Your task to perform on an android device: Do I have any events this weekend? Image 0: 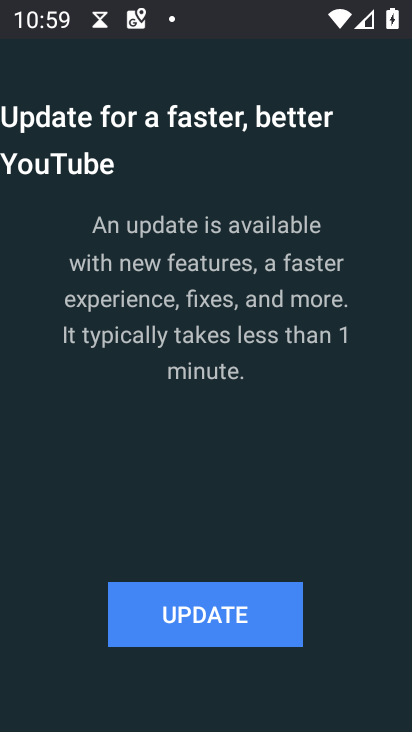
Step 0: press home button
Your task to perform on an android device: Do I have any events this weekend? Image 1: 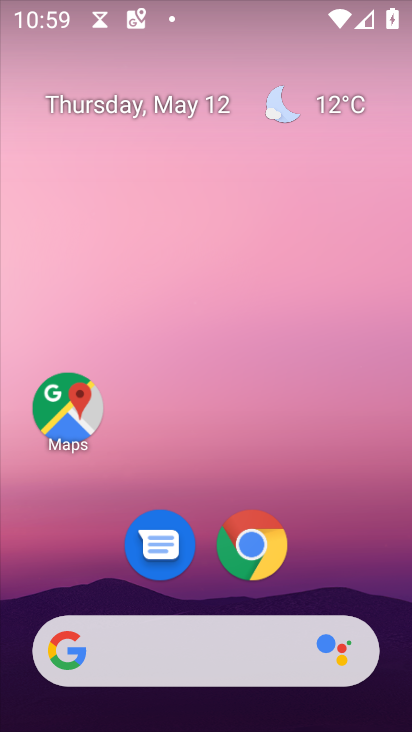
Step 1: drag from (207, 596) to (215, 45)
Your task to perform on an android device: Do I have any events this weekend? Image 2: 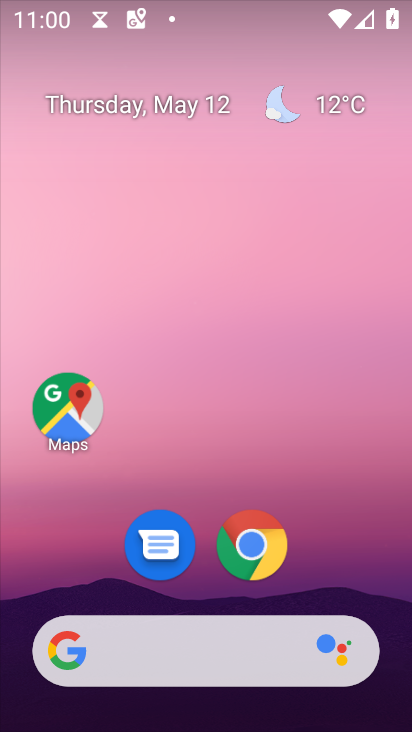
Step 2: drag from (329, 593) to (309, 45)
Your task to perform on an android device: Do I have any events this weekend? Image 3: 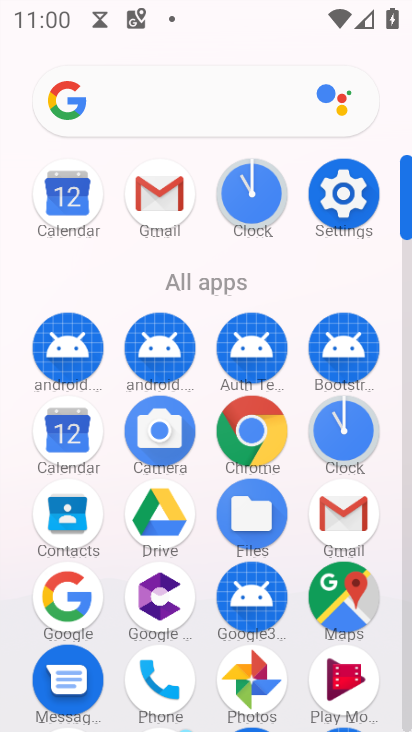
Step 3: click (64, 426)
Your task to perform on an android device: Do I have any events this weekend? Image 4: 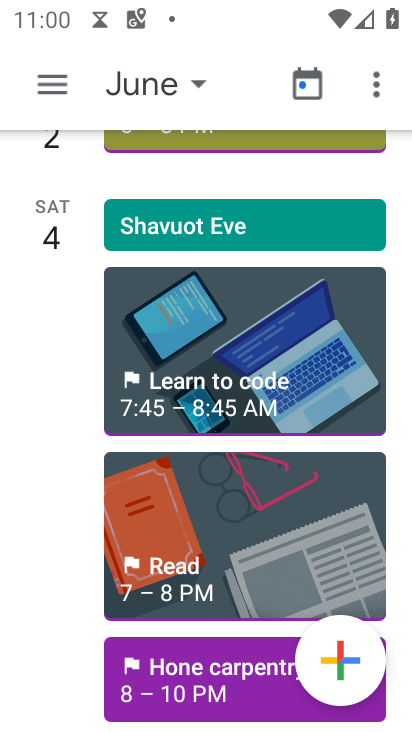
Step 4: click (57, 78)
Your task to perform on an android device: Do I have any events this weekend? Image 5: 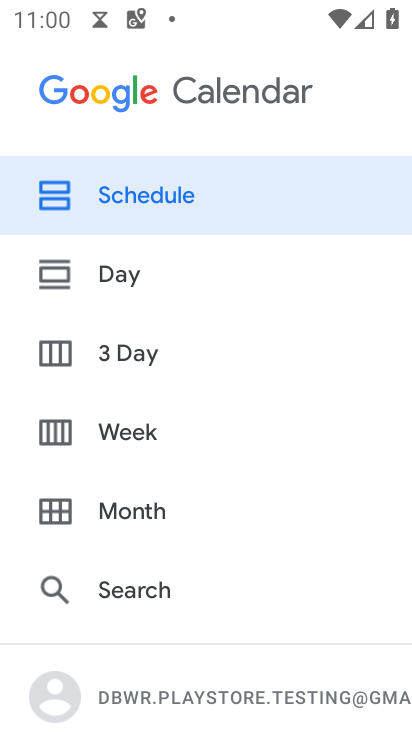
Step 5: click (84, 435)
Your task to perform on an android device: Do I have any events this weekend? Image 6: 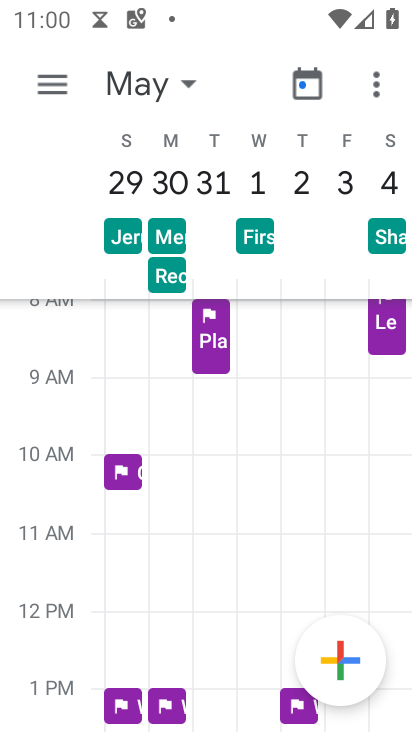
Step 6: drag from (152, 178) to (406, 174)
Your task to perform on an android device: Do I have any events this weekend? Image 7: 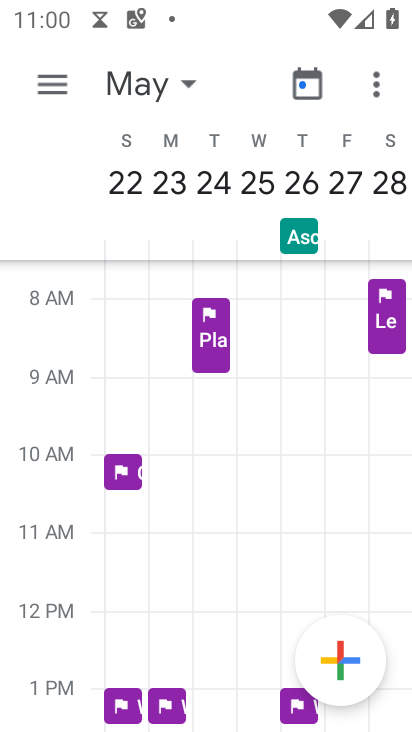
Step 7: drag from (123, 182) to (381, 176)
Your task to perform on an android device: Do I have any events this weekend? Image 8: 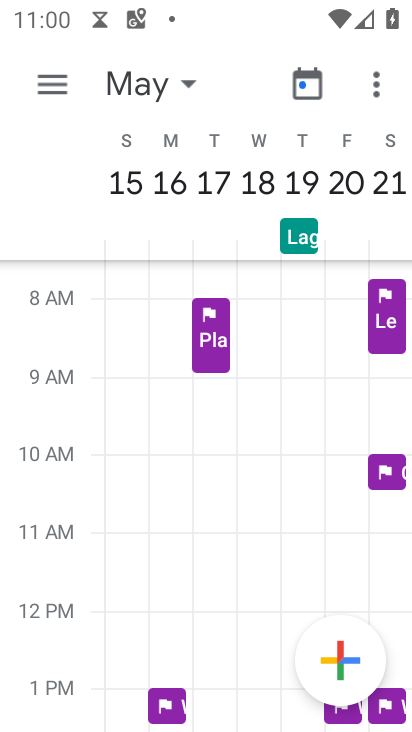
Step 8: drag from (123, 190) to (408, 179)
Your task to perform on an android device: Do I have any events this weekend? Image 9: 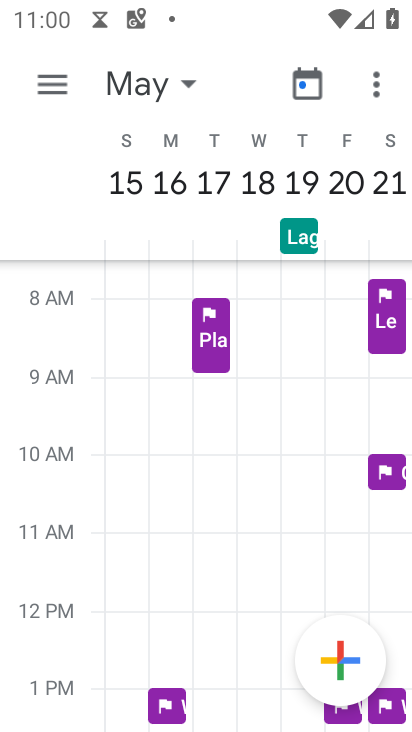
Step 9: drag from (131, 175) to (408, 170)
Your task to perform on an android device: Do I have any events this weekend? Image 10: 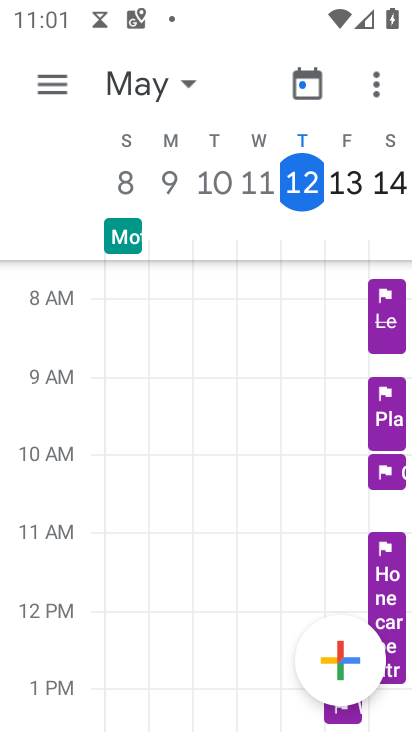
Step 10: click (303, 180)
Your task to perform on an android device: Do I have any events this weekend? Image 11: 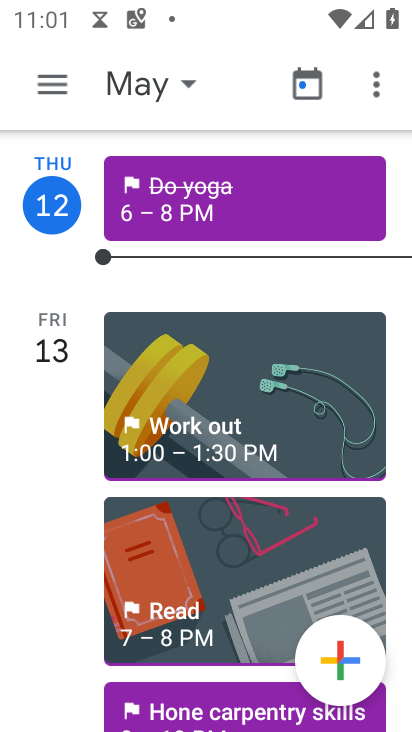
Step 11: drag from (65, 524) to (67, 209)
Your task to perform on an android device: Do I have any events this weekend? Image 12: 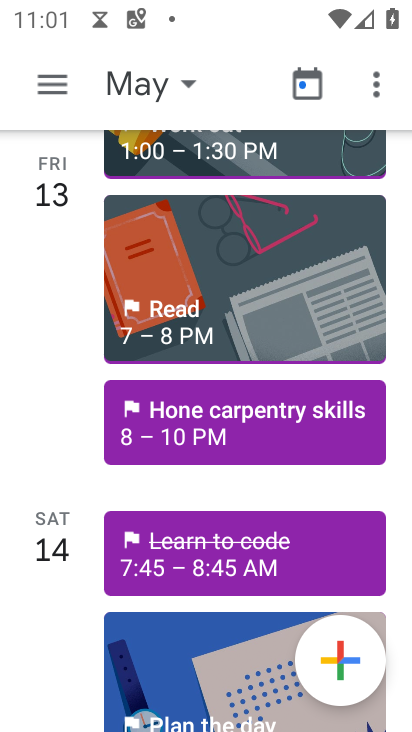
Step 12: drag from (69, 601) to (71, 343)
Your task to perform on an android device: Do I have any events this weekend? Image 13: 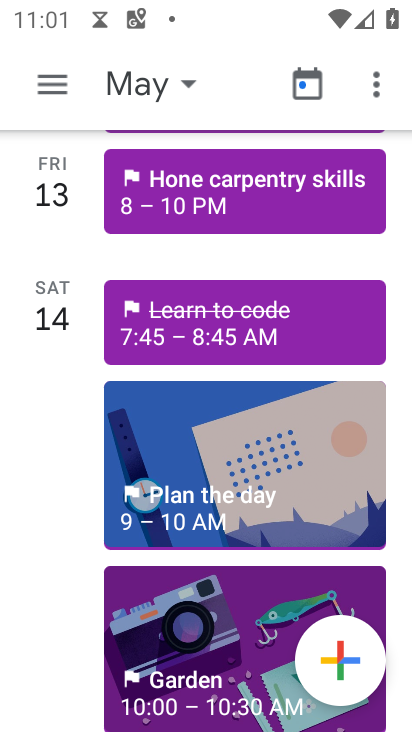
Step 13: drag from (49, 536) to (51, 291)
Your task to perform on an android device: Do I have any events this weekend? Image 14: 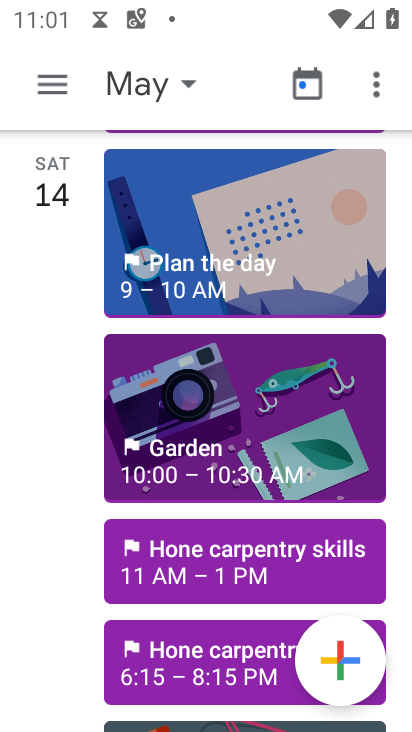
Step 14: click (59, 79)
Your task to perform on an android device: Do I have any events this weekend? Image 15: 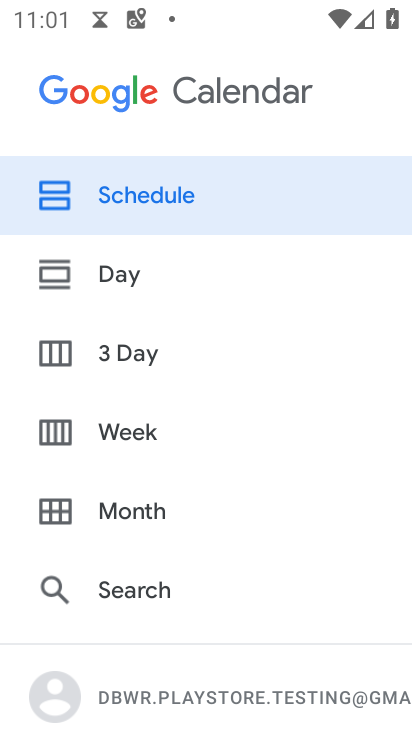
Step 15: drag from (128, 625) to (121, 192)
Your task to perform on an android device: Do I have any events this weekend? Image 16: 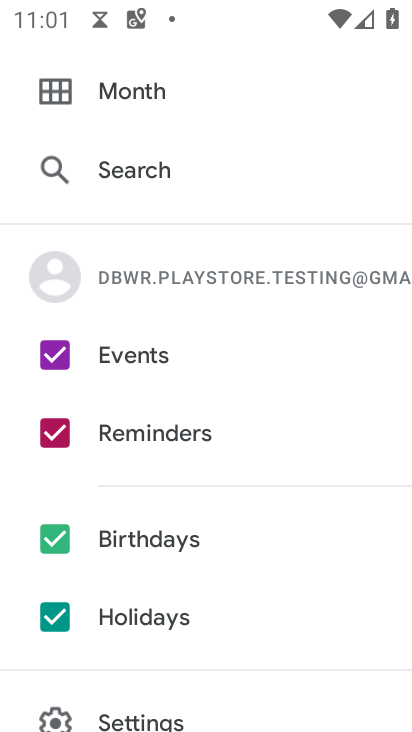
Step 16: click (57, 424)
Your task to perform on an android device: Do I have any events this weekend? Image 17: 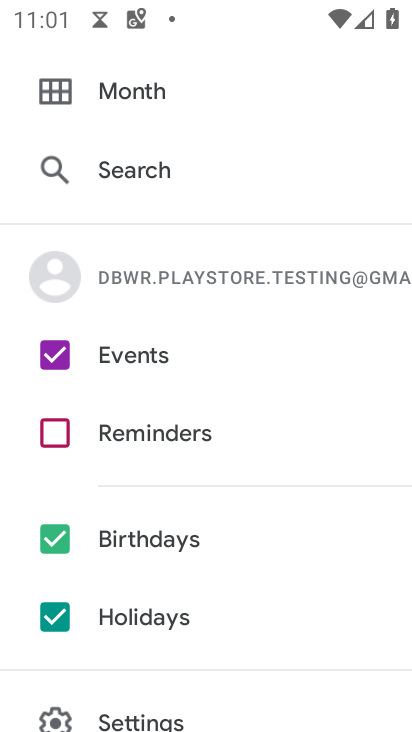
Step 17: click (52, 536)
Your task to perform on an android device: Do I have any events this weekend? Image 18: 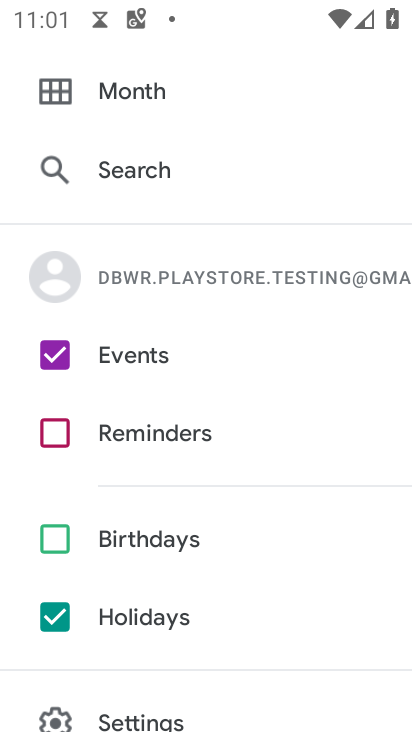
Step 18: click (54, 615)
Your task to perform on an android device: Do I have any events this weekend? Image 19: 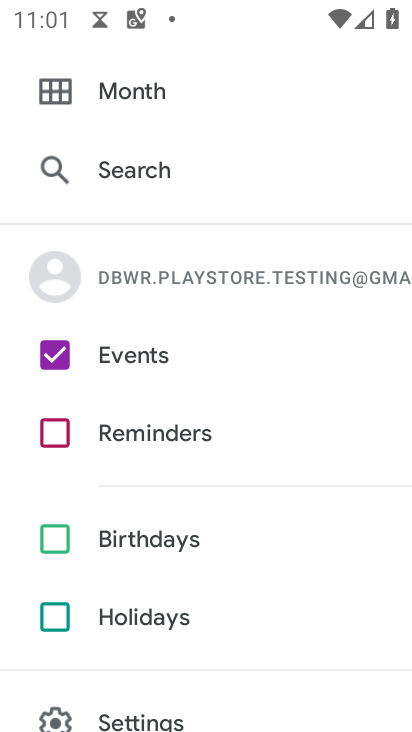
Step 19: drag from (89, 130) to (57, 723)
Your task to perform on an android device: Do I have any events this weekend? Image 20: 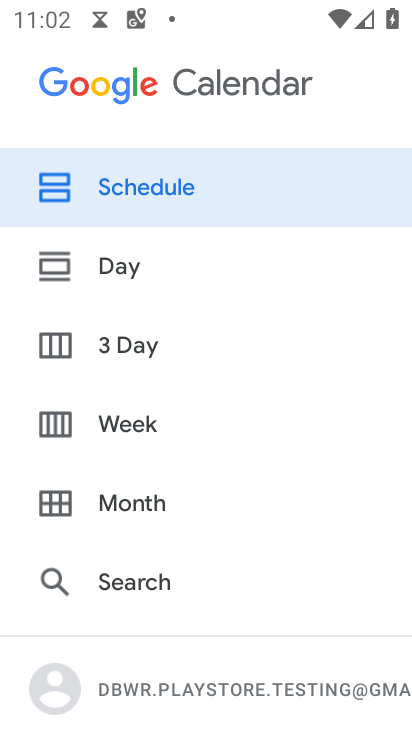
Step 20: click (85, 191)
Your task to perform on an android device: Do I have any events this weekend? Image 21: 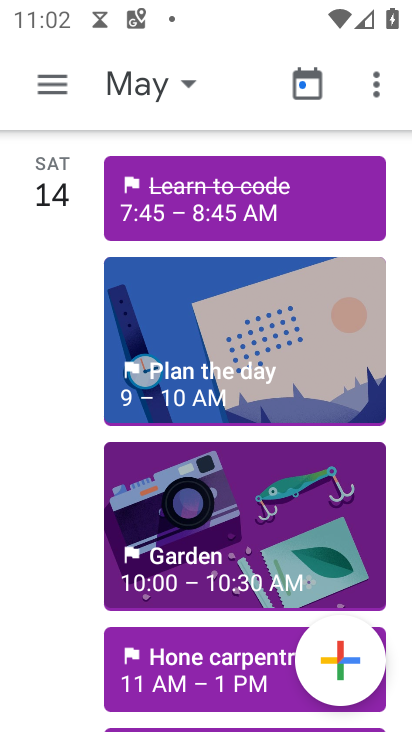
Step 21: task complete